Your task to perform on an android device: turn off notifications settings in the gmail app Image 0: 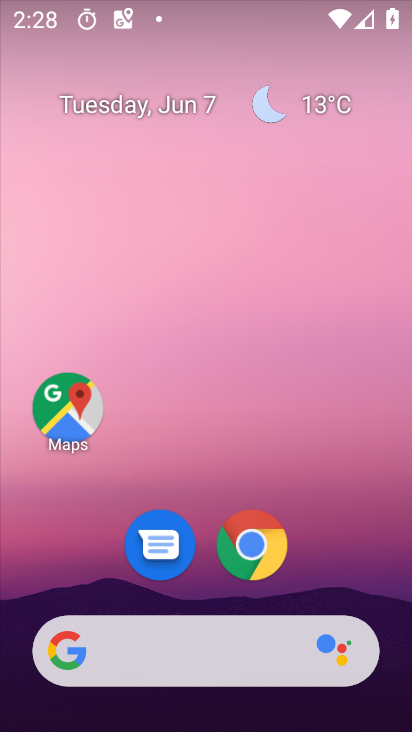
Step 0: drag from (340, 528) to (197, 55)
Your task to perform on an android device: turn off notifications settings in the gmail app Image 1: 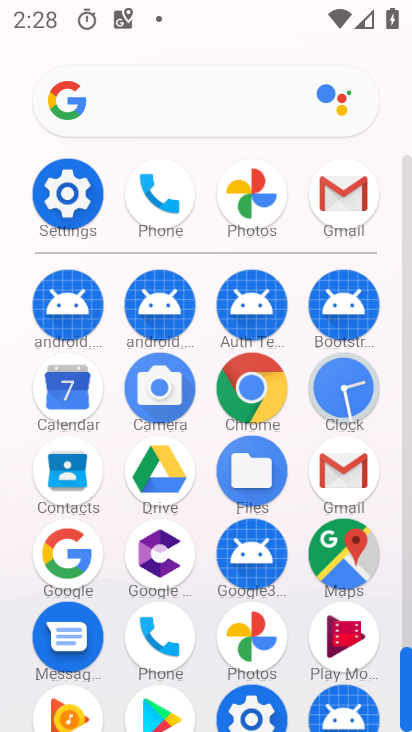
Step 1: click (358, 457)
Your task to perform on an android device: turn off notifications settings in the gmail app Image 2: 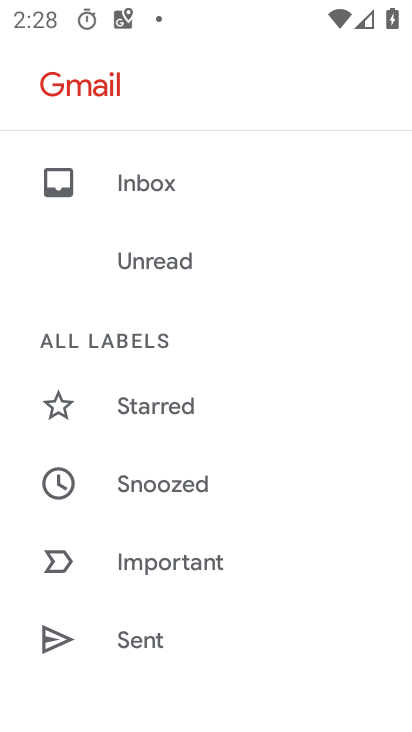
Step 2: drag from (267, 652) to (50, 14)
Your task to perform on an android device: turn off notifications settings in the gmail app Image 3: 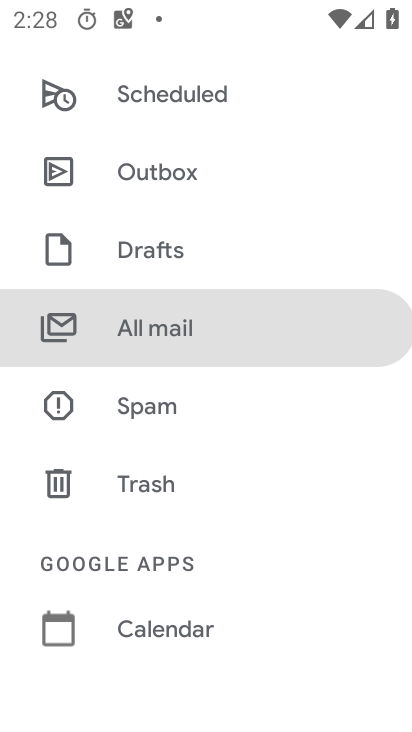
Step 3: drag from (274, 561) to (233, 112)
Your task to perform on an android device: turn off notifications settings in the gmail app Image 4: 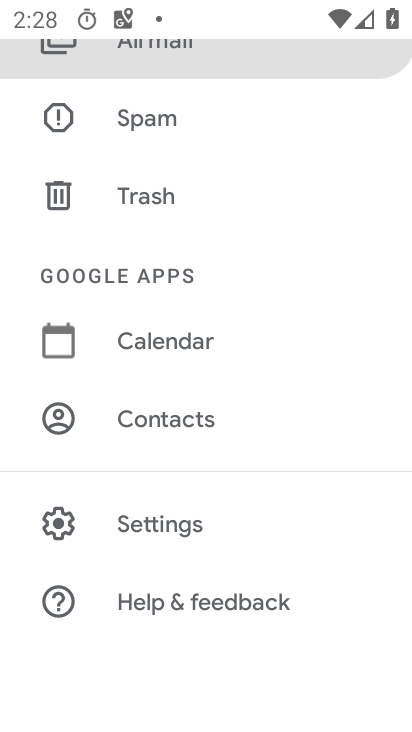
Step 4: click (197, 511)
Your task to perform on an android device: turn off notifications settings in the gmail app Image 5: 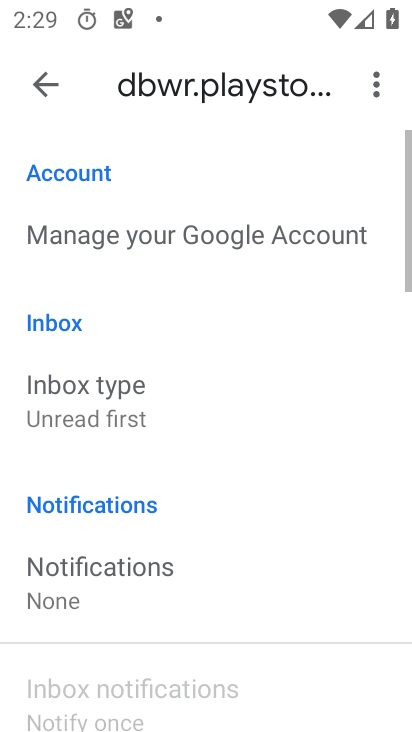
Step 5: click (197, 580)
Your task to perform on an android device: turn off notifications settings in the gmail app Image 6: 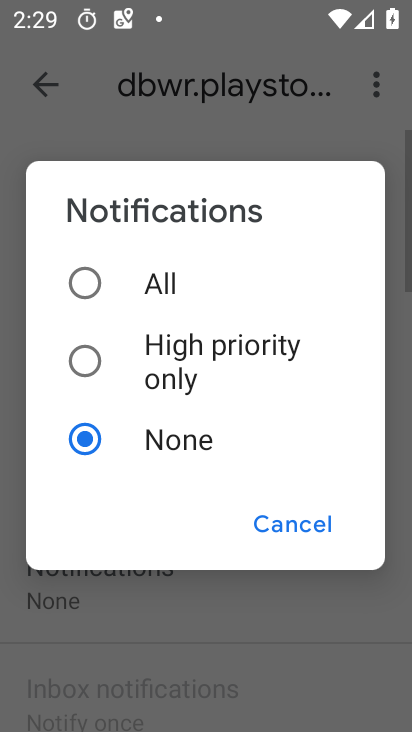
Step 6: task complete